Your task to perform on an android device: Open Youtube and go to the subscriptions tab Image 0: 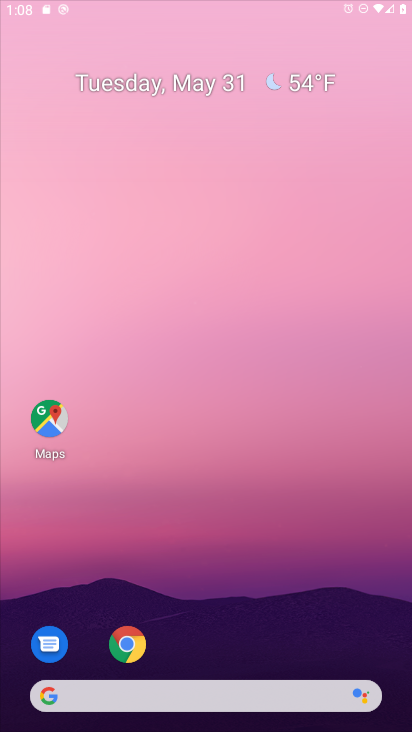
Step 0: press home button
Your task to perform on an android device: Open Youtube and go to the subscriptions tab Image 1: 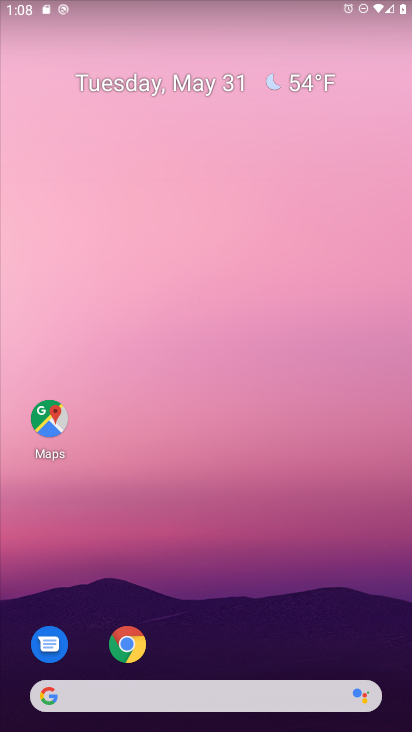
Step 1: drag from (247, 662) to (200, 233)
Your task to perform on an android device: Open Youtube and go to the subscriptions tab Image 2: 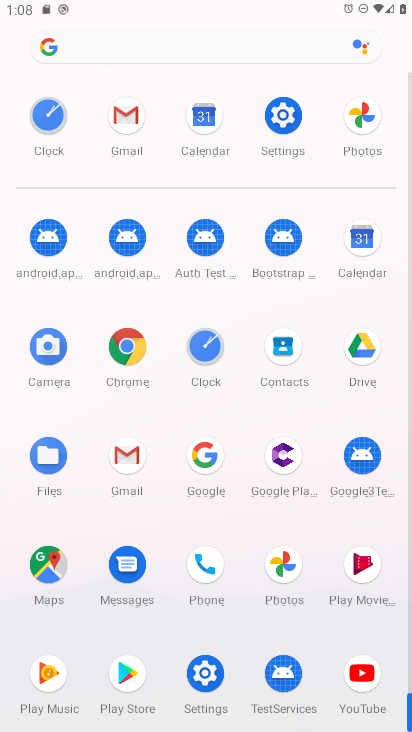
Step 2: drag from (230, 638) to (214, 196)
Your task to perform on an android device: Open Youtube and go to the subscriptions tab Image 3: 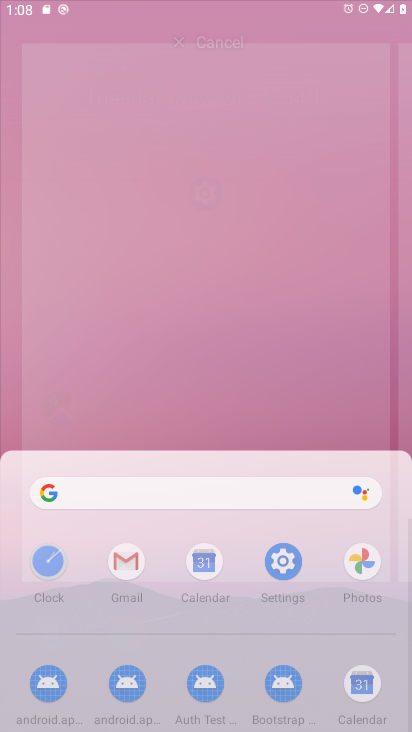
Step 3: click (365, 682)
Your task to perform on an android device: Open Youtube and go to the subscriptions tab Image 4: 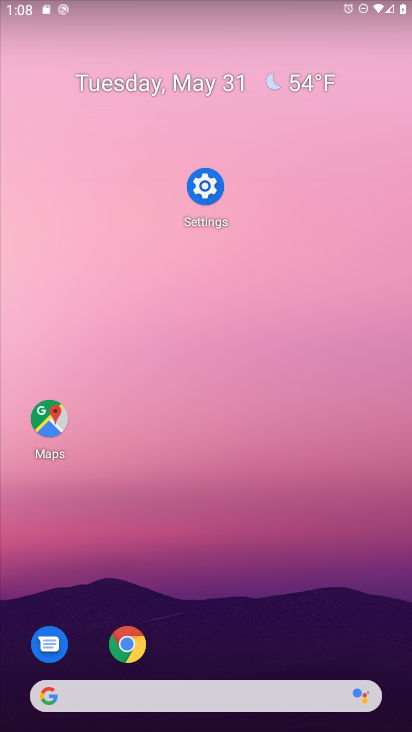
Step 4: drag from (239, 638) to (252, 177)
Your task to perform on an android device: Open Youtube and go to the subscriptions tab Image 5: 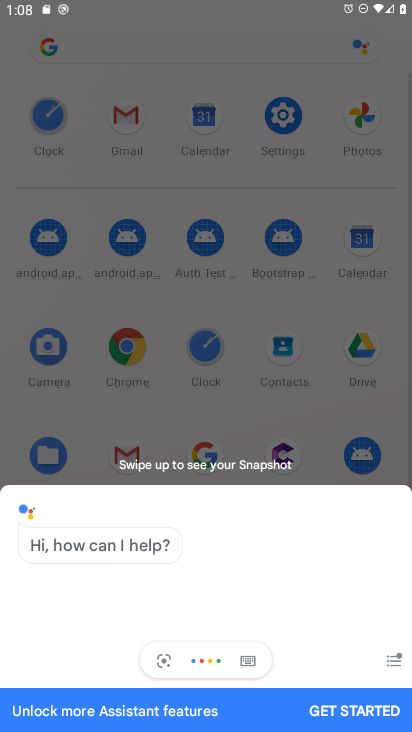
Step 5: press home button
Your task to perform on an android device: Open Youtube and go to the subscriptions tab Image 6: 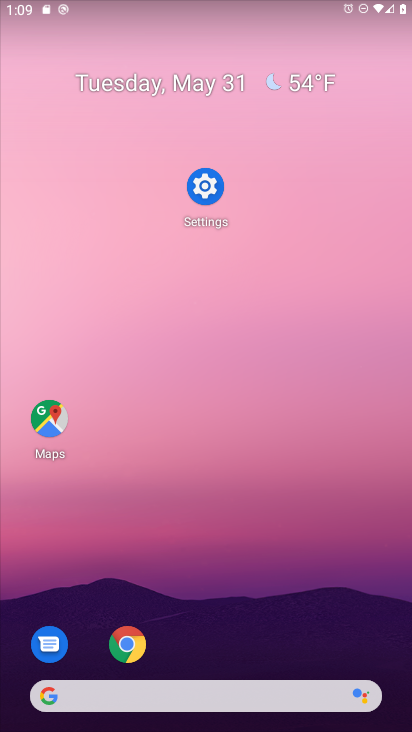
Step 6: drag from (324, 649) to (351, 116)
Your task to perform on an android device: Open Youtube and go to the subscriptions tab Image 7: 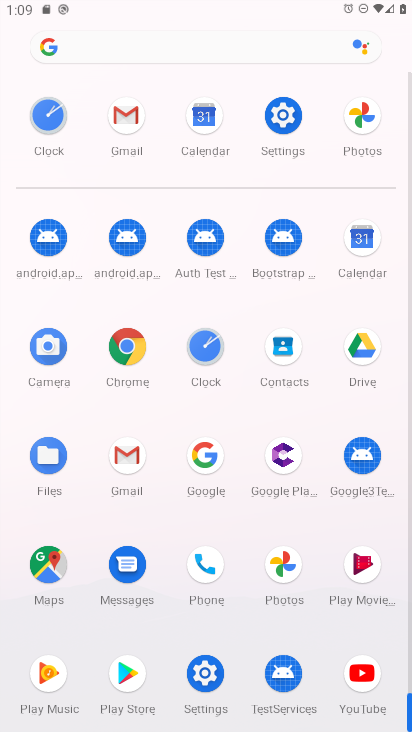
Step 7: click (366, 676)
Your task to perform on an android device: Open Youtube and go to the subscriptions tab Image 8: 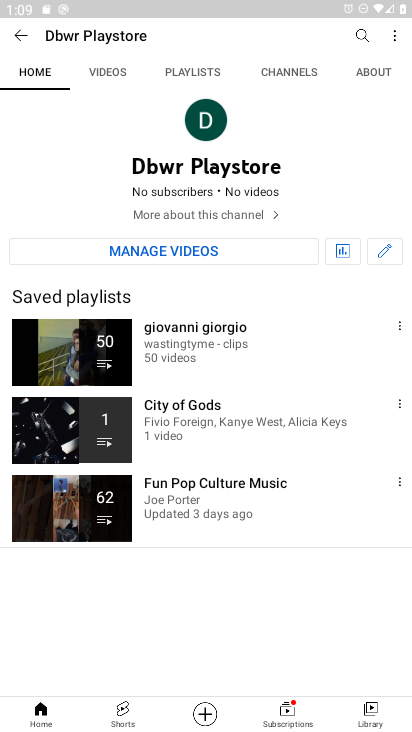
Step 8: click (287, 709)
Your task to perform on an android device: Open Youtube and go to the subscriptions tab Image 9: 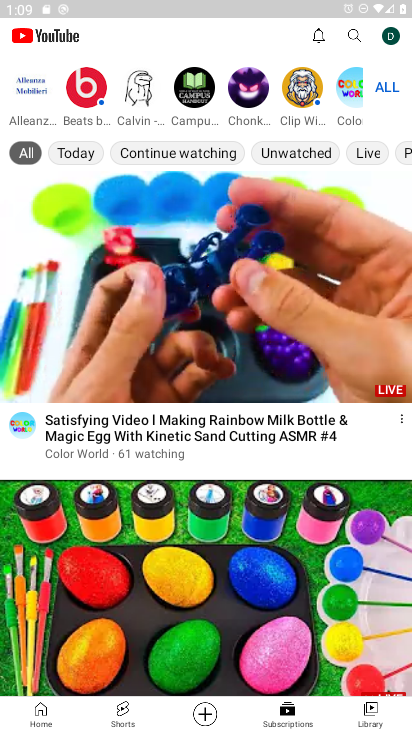
Step 9: task complete